Your task to perform on an android device: toggle data saver in the chrome app Image 0: 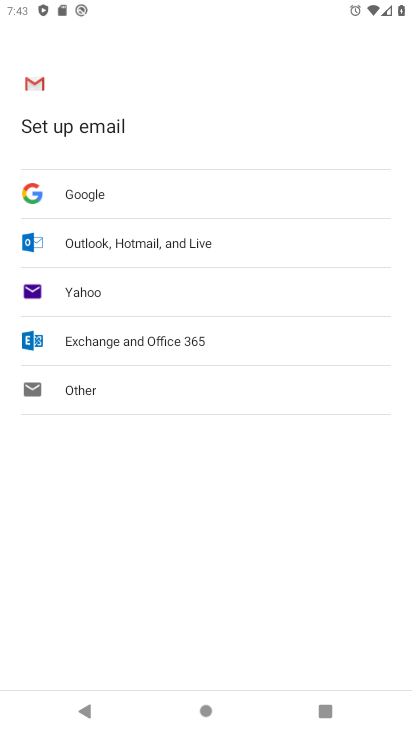
Step 0: press home button
Your task to perform on an android device: toggle data saver in the chrome app Image 1: 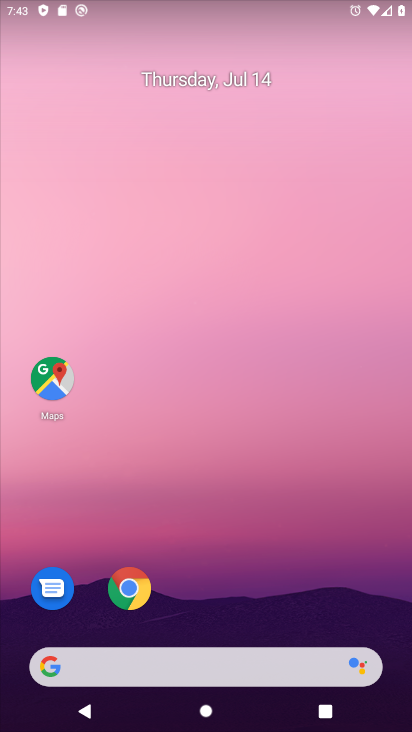
Step 1: click (139, 586)
Your task to perform on an android device: toggle data saver in the chrome app Image 2: 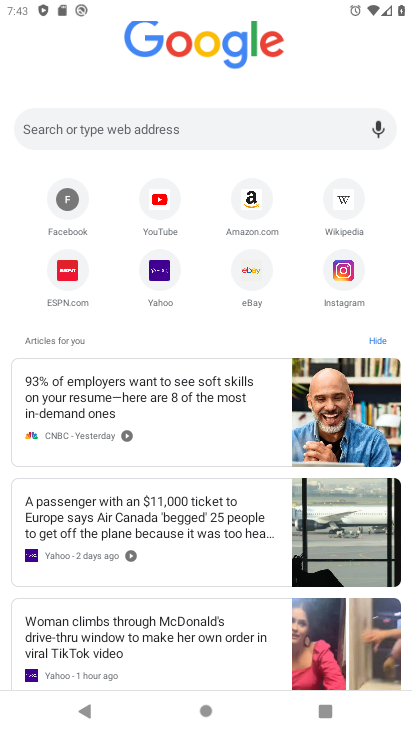
Step 2: click (91, 136)
Your task to perform on an android device: toggle data saver in the chrome app Image 3: 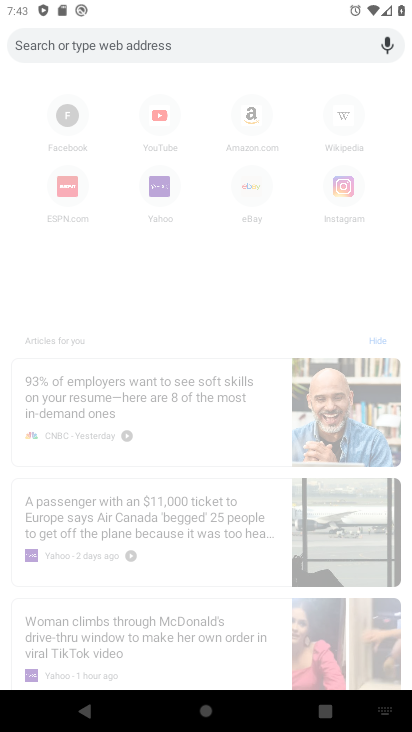
Step 3: click (56, 49)
Your task to perform on an android device: toggle data saver in the chrome app Image 4: 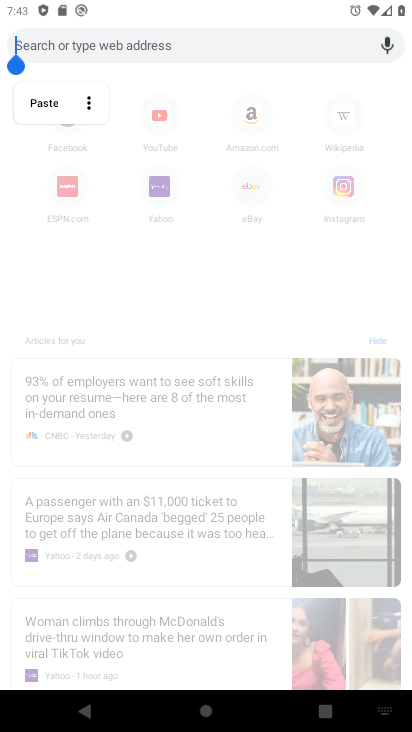
Step 4: click (64, 6)
Your task to perform on an android device: toggle data saver in the chrome app Image 5: 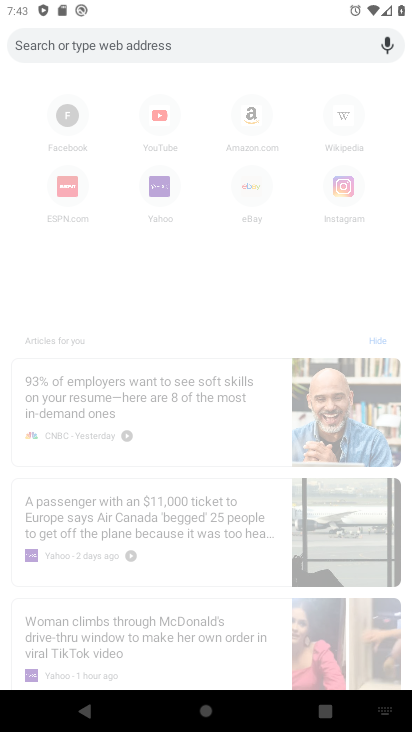
Step 5: click (180, 298)
Your task to perform on an android device: toggle data saver in the chrome app Image 6: 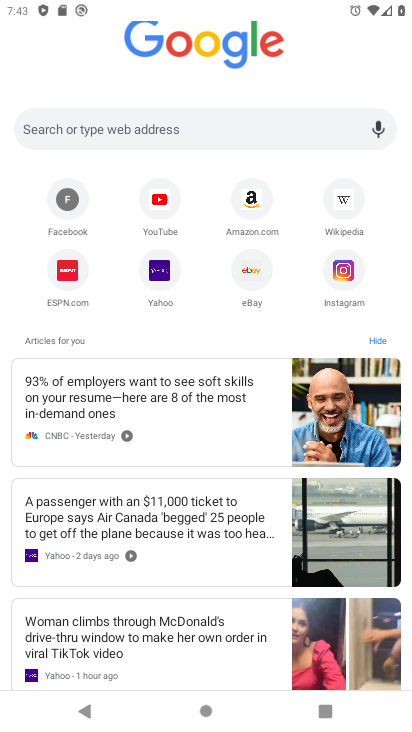
Step 6: task complete